Your task to perform on an android device: open app "LiveIn - Share Your Moment" (install if not already installed) and go to login screen Image 0: 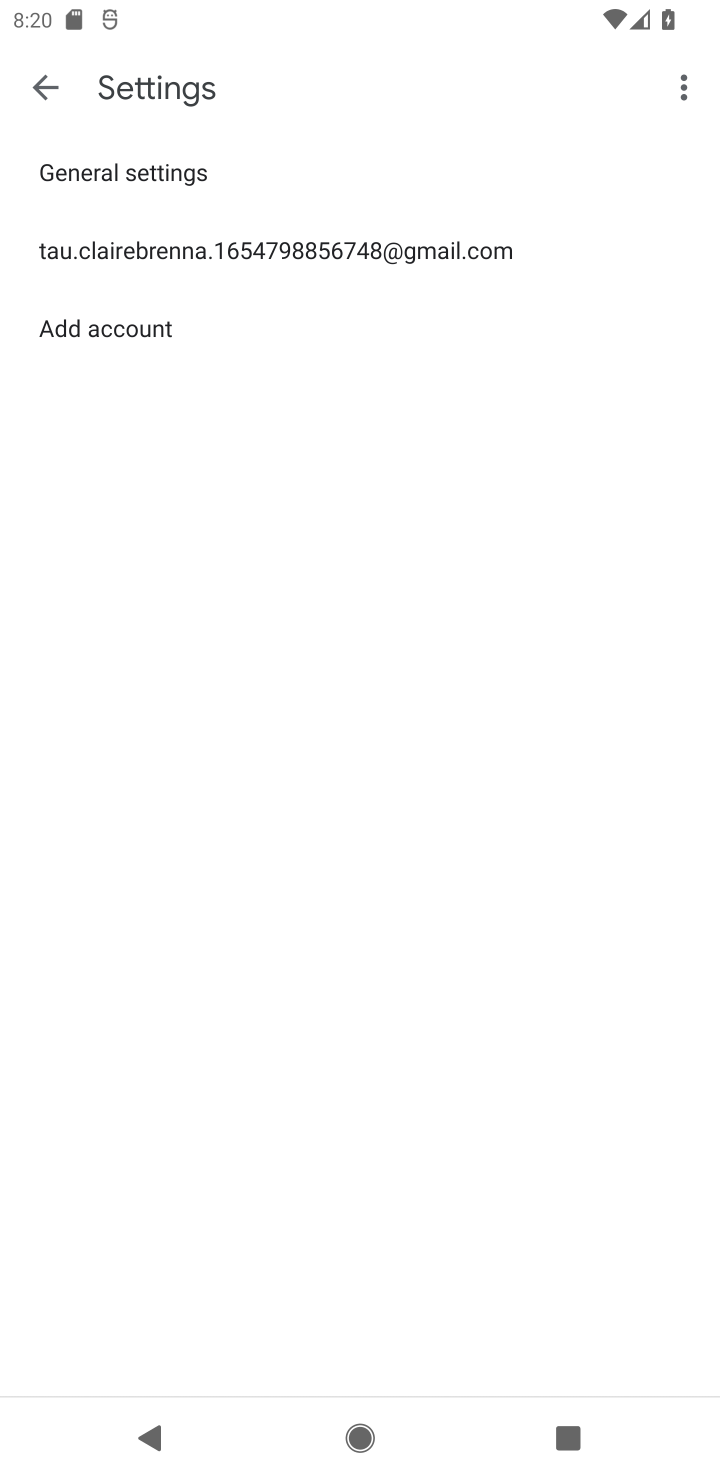
Step 0: press home button
Your task to perform on an android device: open app "LiveIn - Share Your Moment" (install if not already installed) and go to login screen Image 1: 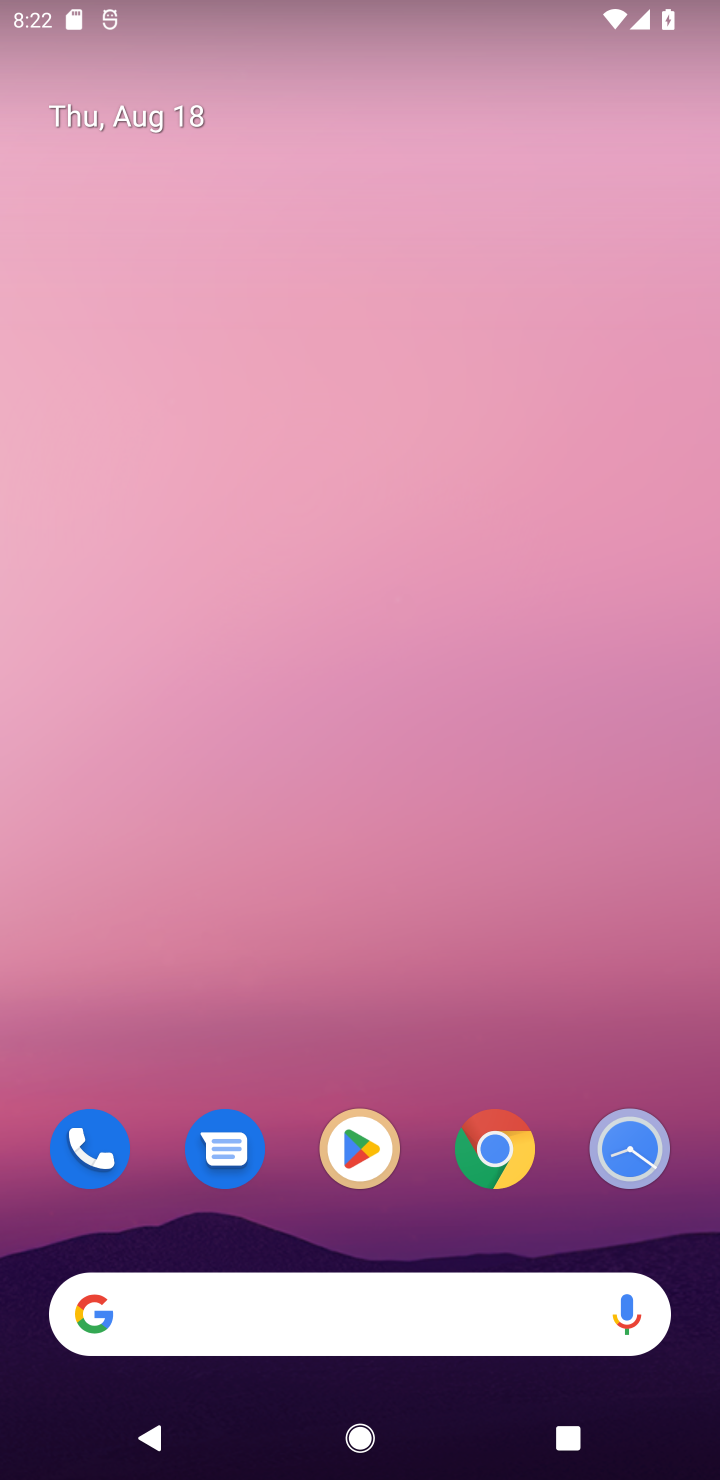
Step 1: drag from (692, 1215) to (484, 0)
Your task to perform on an android device: open app "LiveIn - Share Your Moment" (install if not already installed) and go to login screen Image 2: 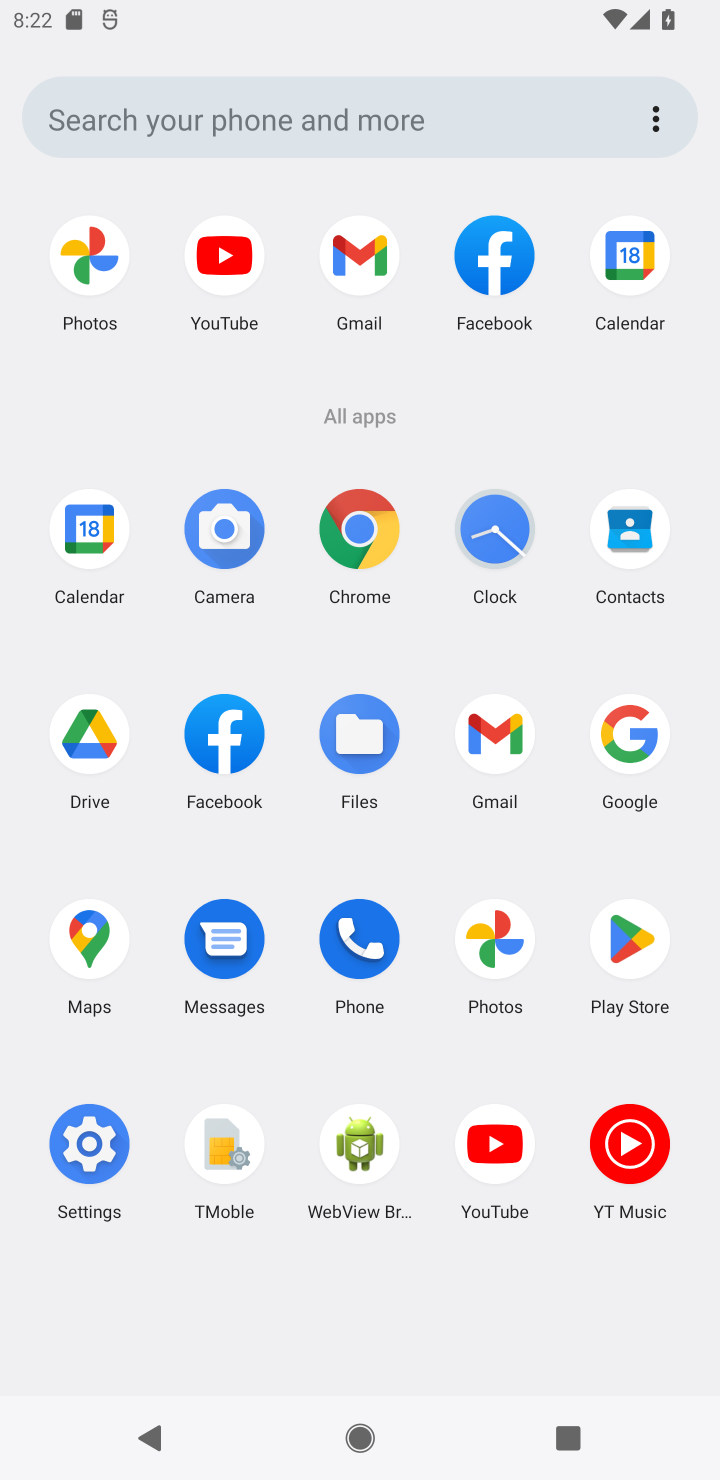
Step 2: click (610, 945)
Your task to perform on an android device: open app "LiveIn - Share Your Moment" (install if not already installed) and go to login screen Image 3: 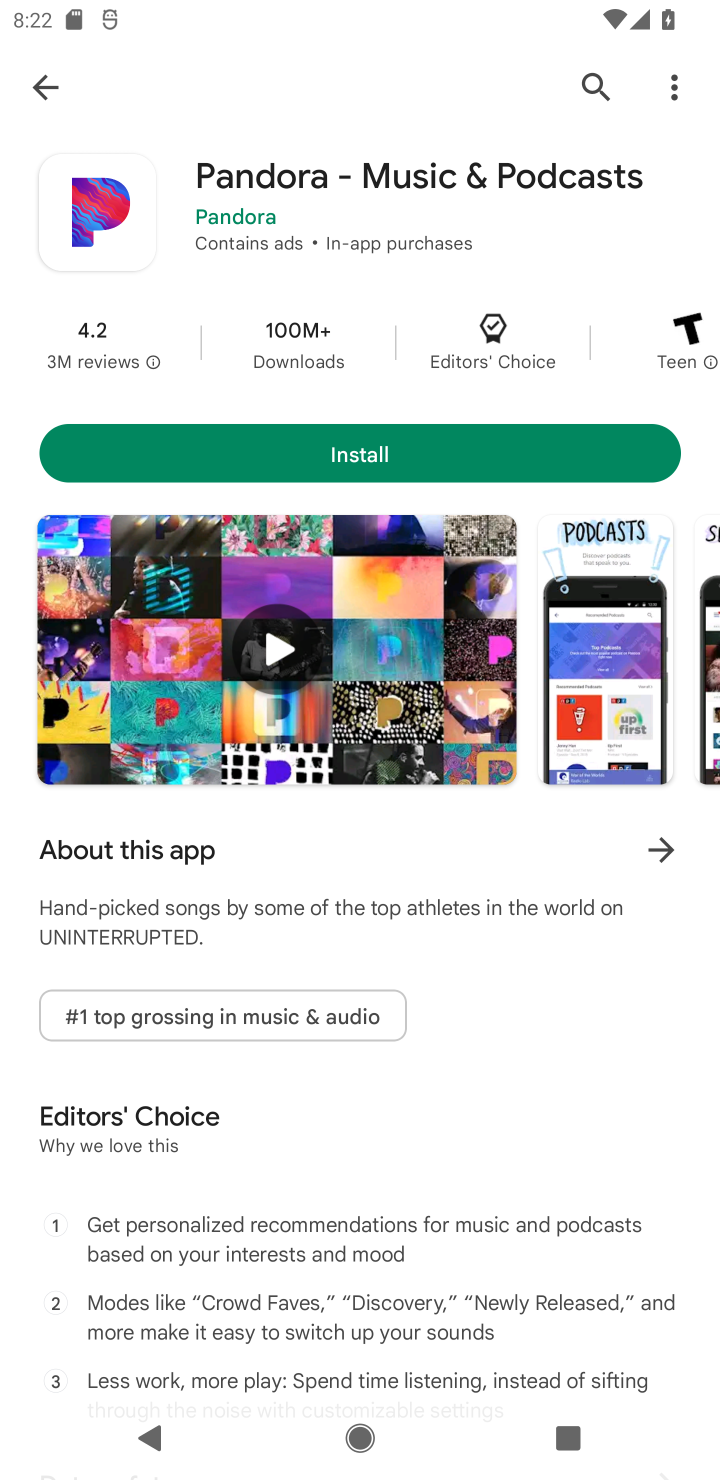
Step 3: press back button
Your task to perform on an android device: open app "LiveIn - Share Your Moment" (install if not already installed) and go to login screen Image 4: 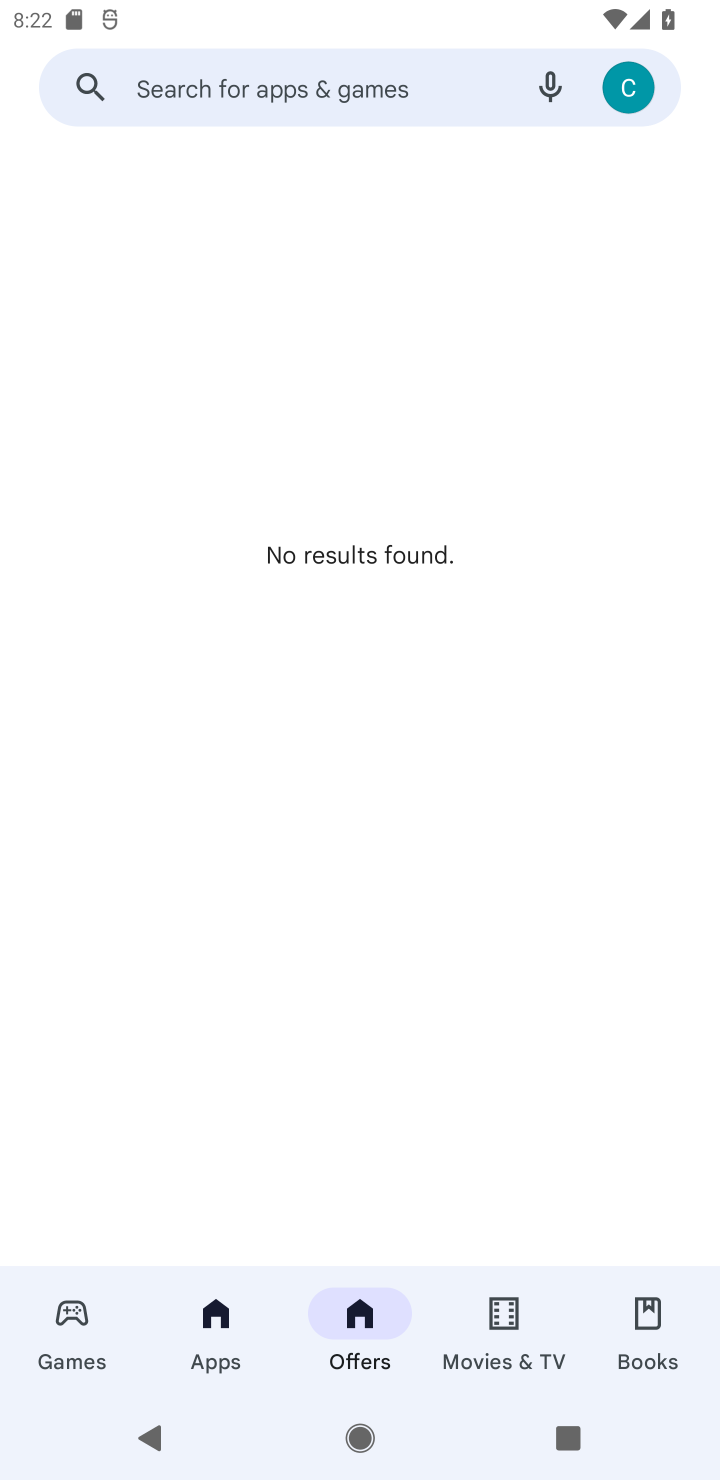
Step 4: click (213, 89)
Your task to perform on an android device: open app "LiveIn - Share Your Moment" (install if not already installed) and go to login screen Image 5: 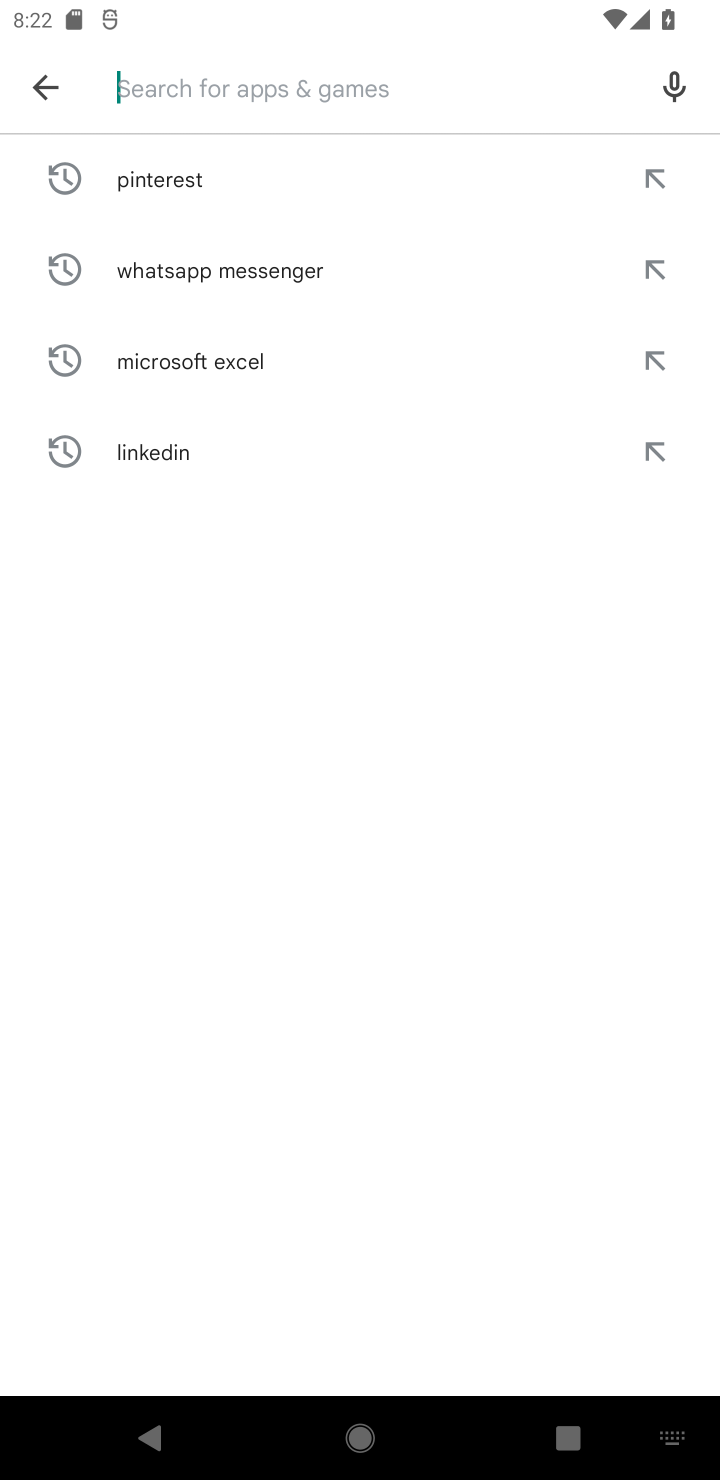
Step 5: type "LiveIn - Share Your Moment"
Your task to perform on an android device: open app "LiveIn - Share Your Moment" (install if not already installed) and go to login screen Image 6: 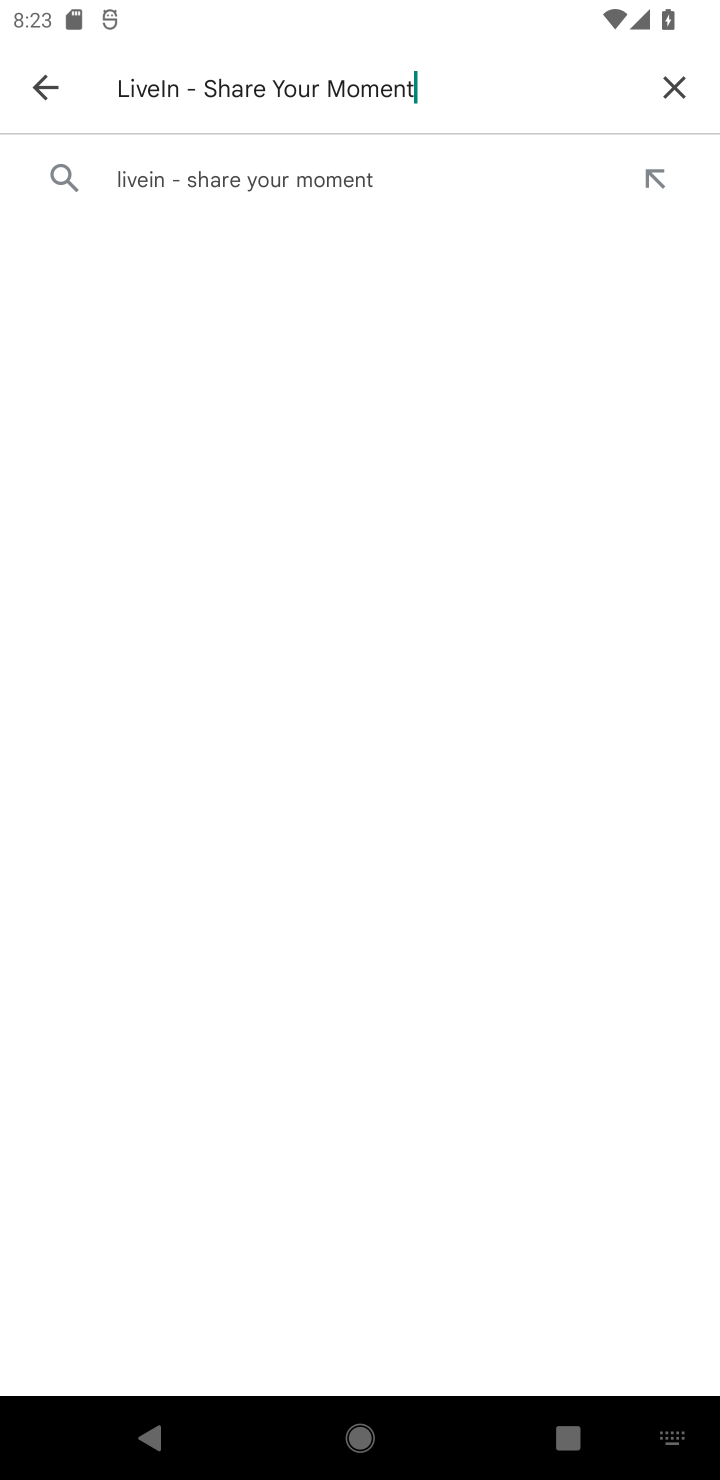
Step 6: click (182, 179)
Your task to perform on an android device: open app "LiveIn - Share Your Moment" (install if not already installed) and go to login screen Image 7: 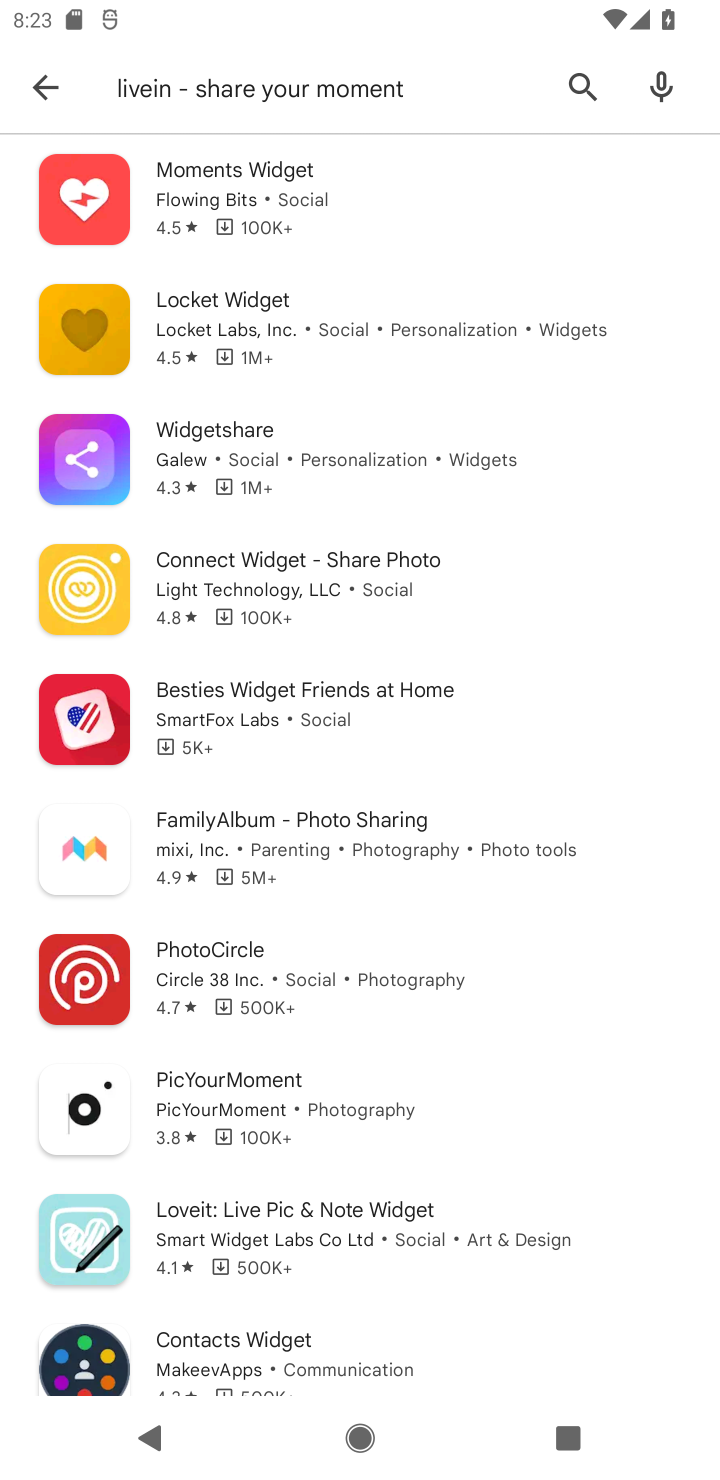
Step 7: task complete